Your task to perform on an android device: turn on notifications settings in the gmail app Image 0: 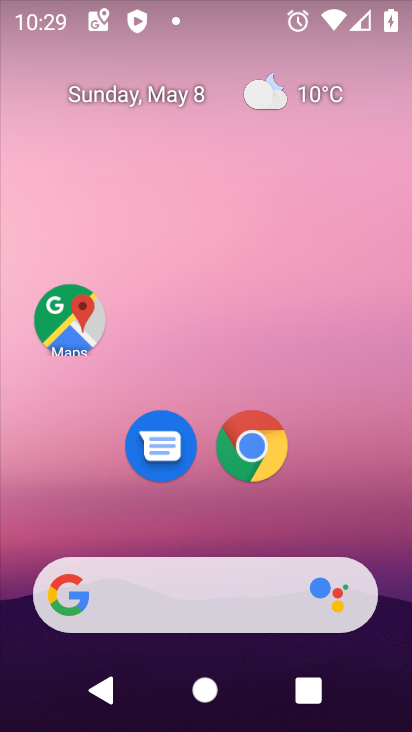
Step 0: drag from (346, 535) to (352, 6)
Your task to perform on an android device: turn on notifications settings in the gmail app Image 1: 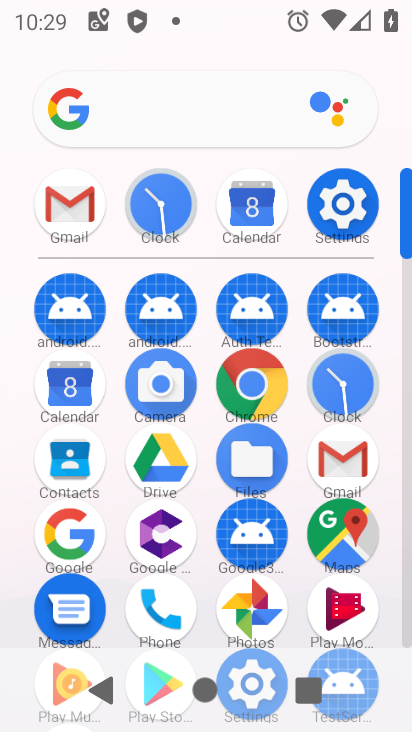
Step 1: click (61, 213)
Your task to perform on an android device: turn on notifications settings in the gmail app Image 2: 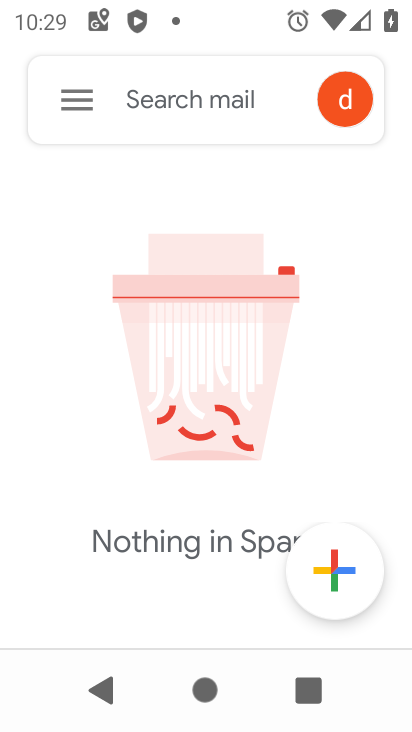
Step 2: click (68, 101)
Your task to perform on an android device: turn on notifications settings in the gmail app Image 3: 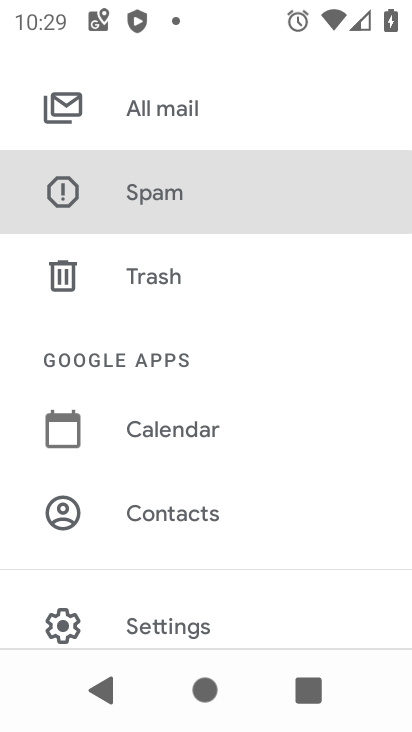
Step 3: click (207, 624)
Your task to perform on an android device: turn on notifications settings in the gmail app Image 4: 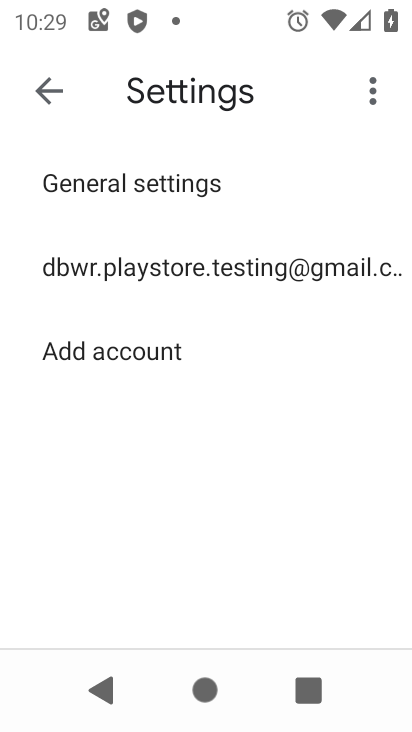
Step 4: click (129, 189)
Your task to perform on an android device: turn on notifications settings in the gmail app Image 5: 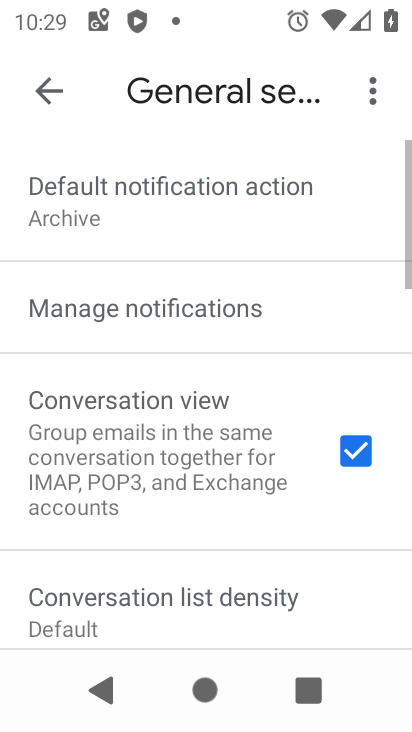
Step 5: click (116, 310)
Your task to perform on an android device: turn on notifications settings in the gmail app Image 6: 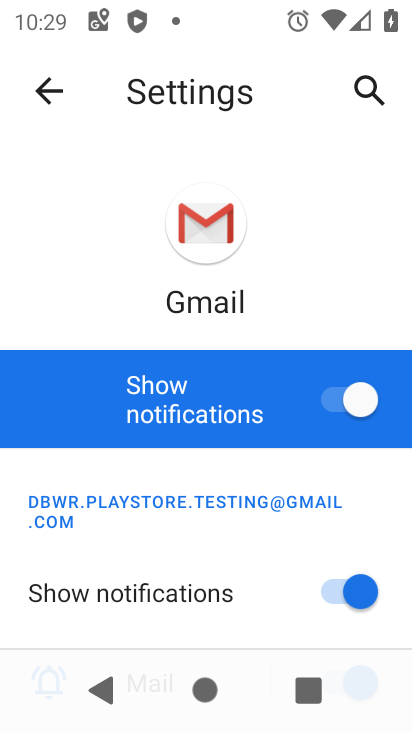
Step 6: task complete